Your task to perform on an android device: Go to display settings Image 0: 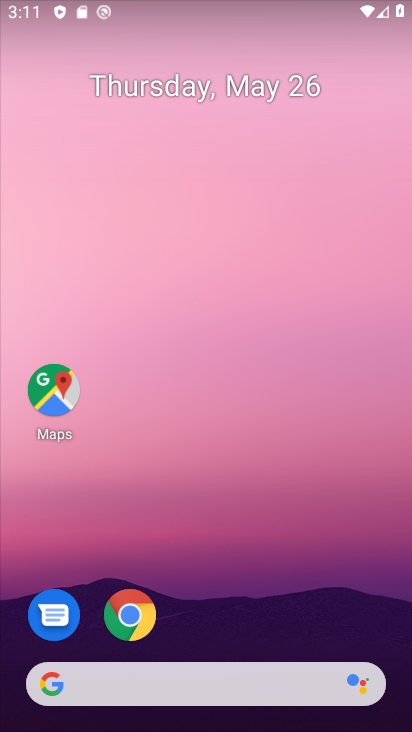
Step 0: drag from (326, 625) to (318, 16)
Your task to perform on an android device: Go to display settings Image 1: 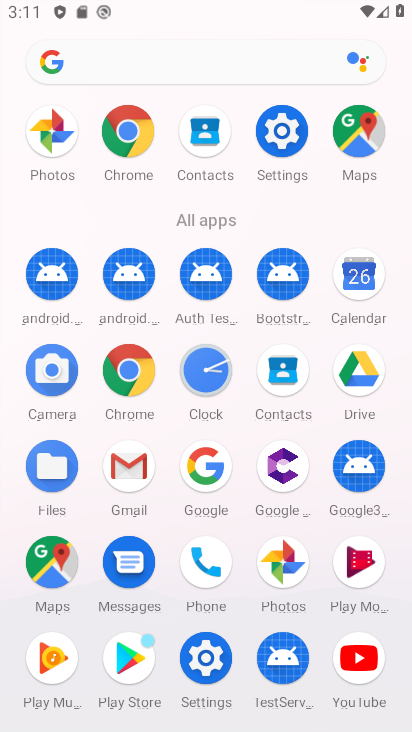
Step 1: click (283, 129)
Your task to perform on an android device: Go to display settings Image 2: 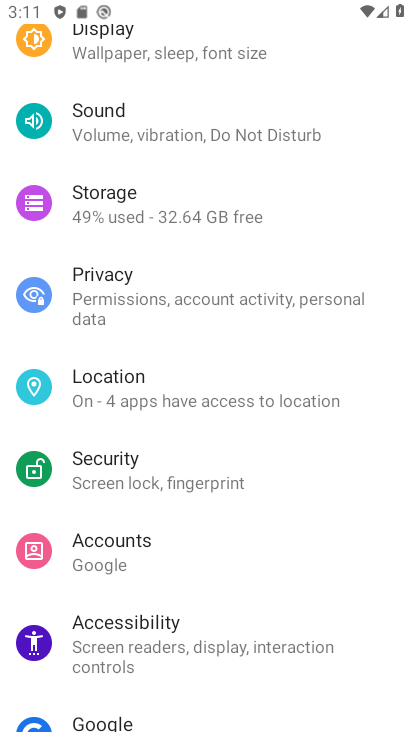
Step 2: click (160, 44)
Your task to perform on an android device: Go to display settings Image 3: 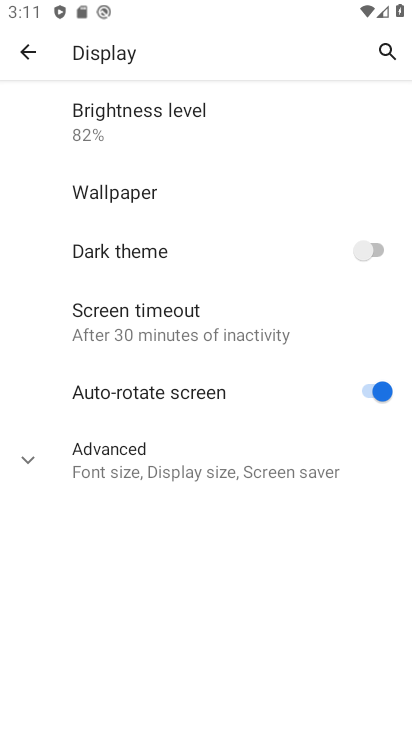
Step 3: click (167, 444)
Your task to perform on an android device: Go to display settings Image 4: 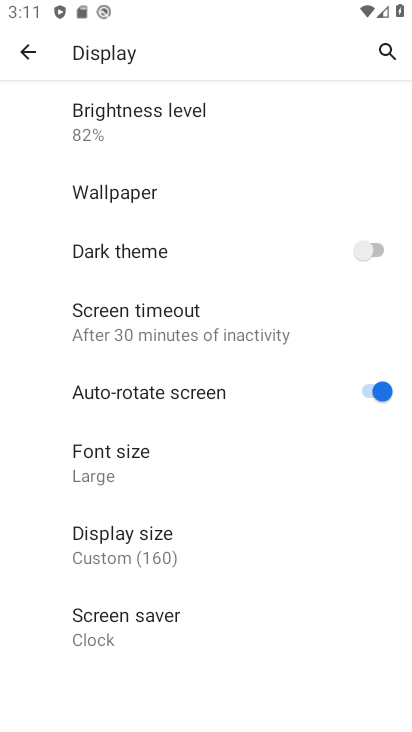
Step 4: task complete